Your task to perform on an android device: Open the Play Movies app and select the watchlist tab. Image 0: 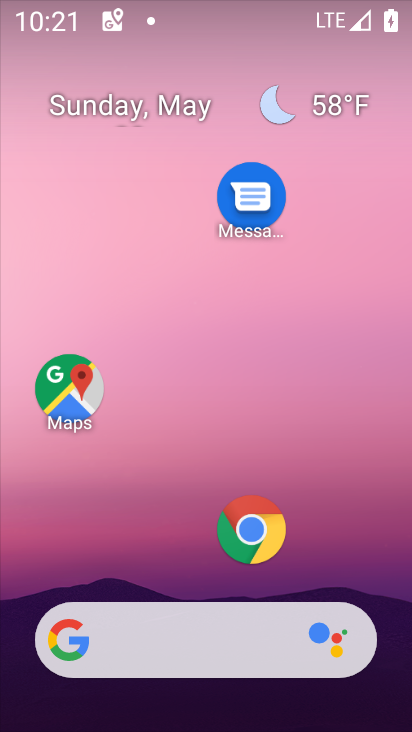
Step 0: drag from (178, 467) to (251, 21)
Your task to perform on an android device: Open the Play Movies app and select the watchlist tab. Image 1: 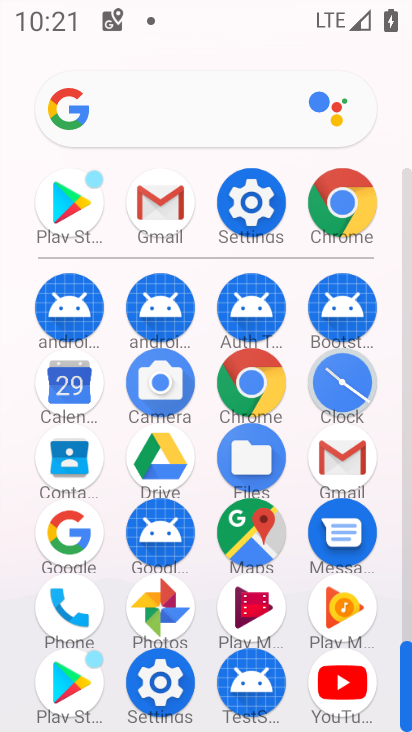
Step 1: click (251, 605)
Your task to perform on an android device: Open the Play Movies app and select the watchlist tab. Image 2: 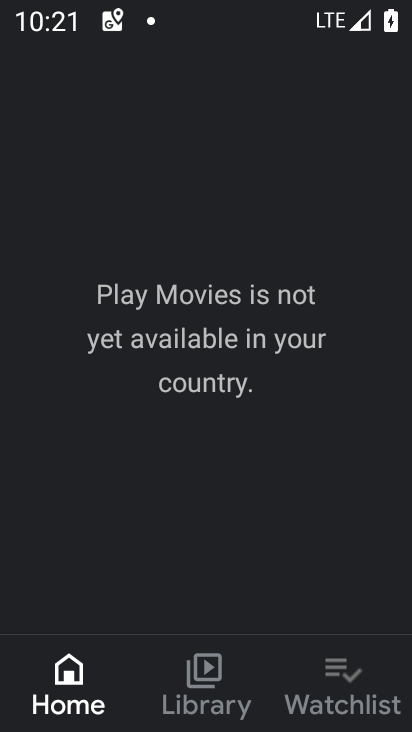
Step 2: click (326, 680)
Your task to perform on an android device: Open the Play Movies app and select the watchlist tab. Image 3: 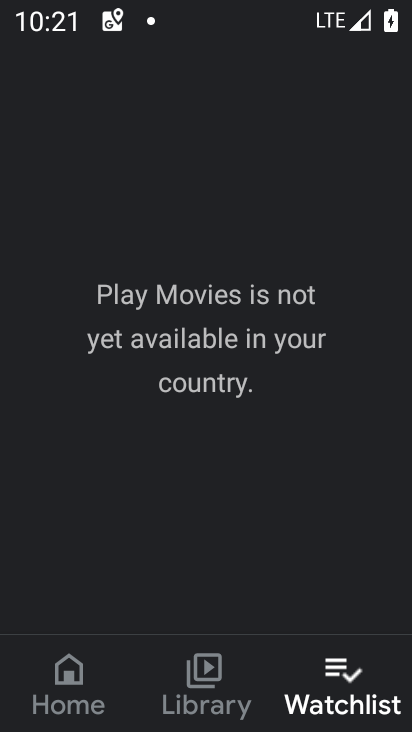
Step 3: task complete